Your task to perform on an android device: read, delete, or share a saved page in the chrome app Image 0: 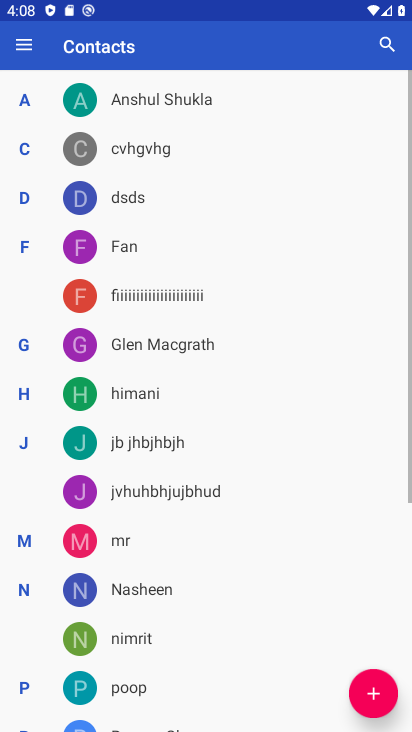
Step 0: drag from (249, 591) to (382, 512)
Your task to perform on an android device: read, delete, or share a saved page in the chrome app Image 1: 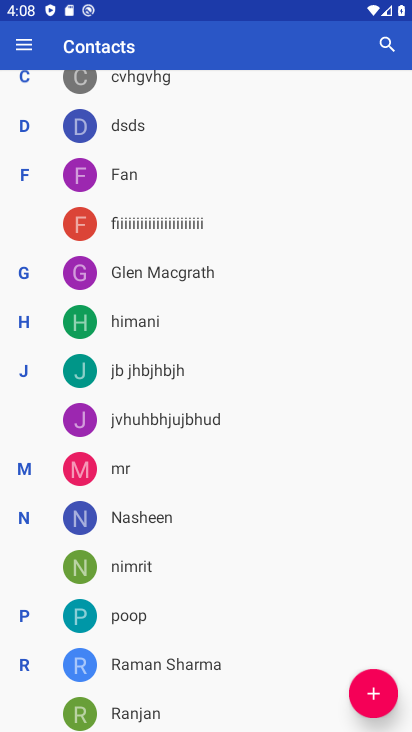
Step 1: press home button
Your task to perform on an android device: read, delete, or share a saved page in the chrome app Image 2: 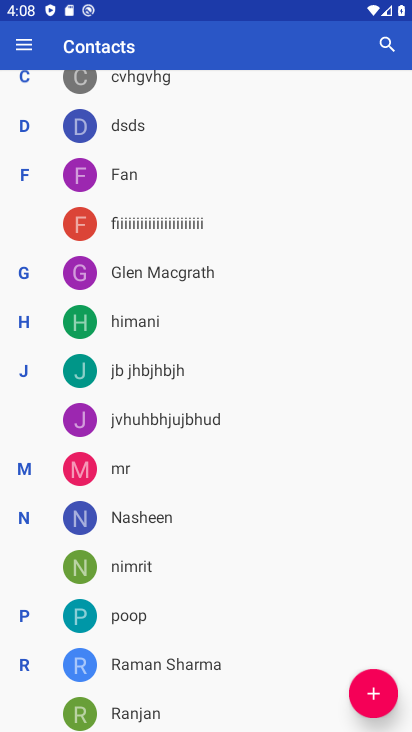
Step 2: drag from (382, 512) to (393, 415)
Your task to perform on an android device: read, delete, or share a saved page in the chrome app Image 3: 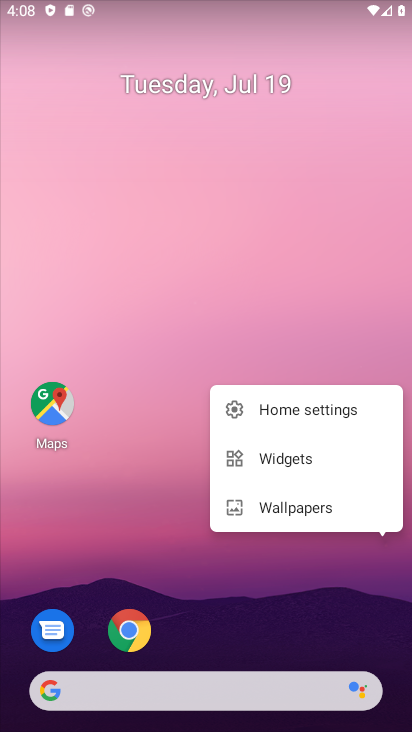
Step 3: click (121, 625)
Your task to perform on an android device: read, delete, or share a saved page in the chrome app Image 4: 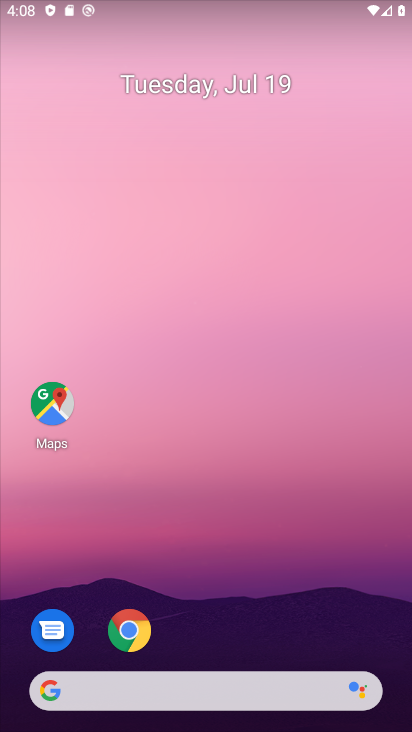
Step 4: click (137, 636)
Your task to perform on an android device: read, delete, or share a saved page in the chrome app Image 5: 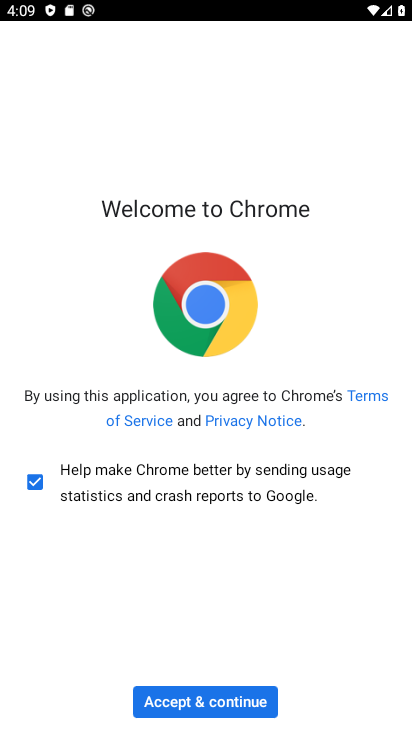
Step 5: click (187, 695)
Your task to perform on an android device: read, delete, or share a saved page in the chrome app Image 6: 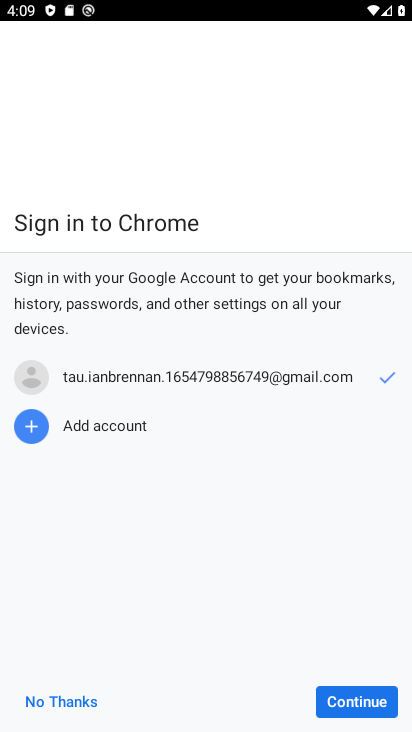
Step 6: click (361, 701)
Your task to perform on an android device: read, delete, or share a saved page in the chrome app Image 7: 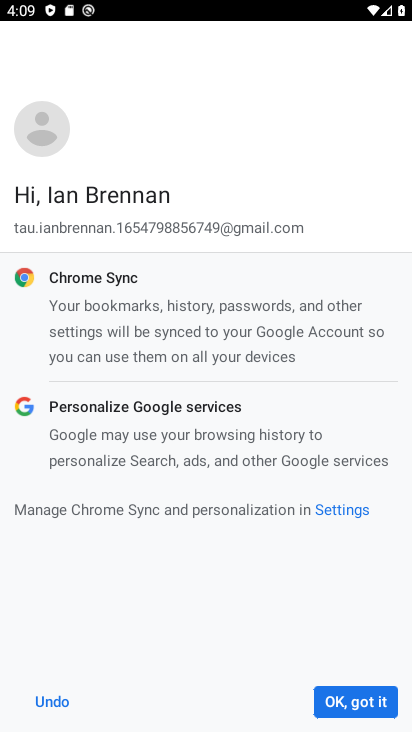
Step 7: click (361, 701)
Your task to perform on an android device: read, delete, or share a saved page in the chrome app Image 8: 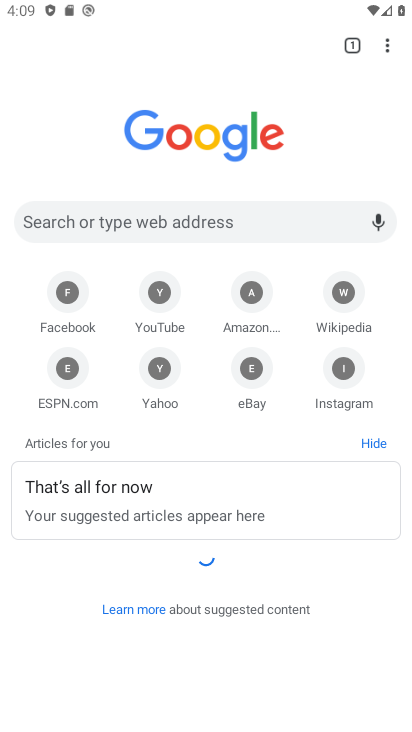
Step 8: task complete